Your task to perform on an android device: toggle show notifications on the lock screen Image 0: 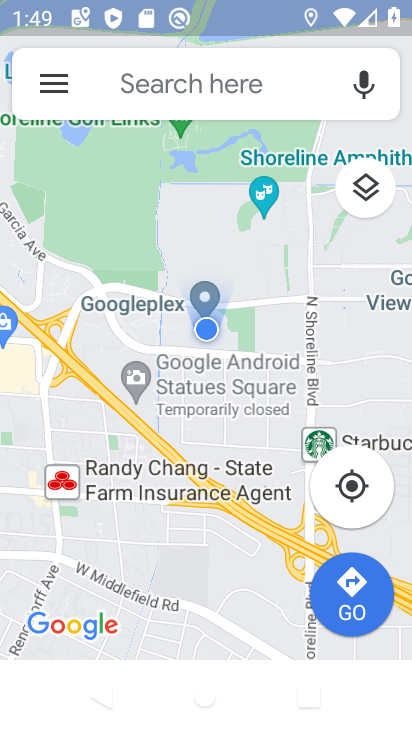
Step 0: press back button
Your task to perform on an android device: toggle show notifications on the lock screen Image 1: 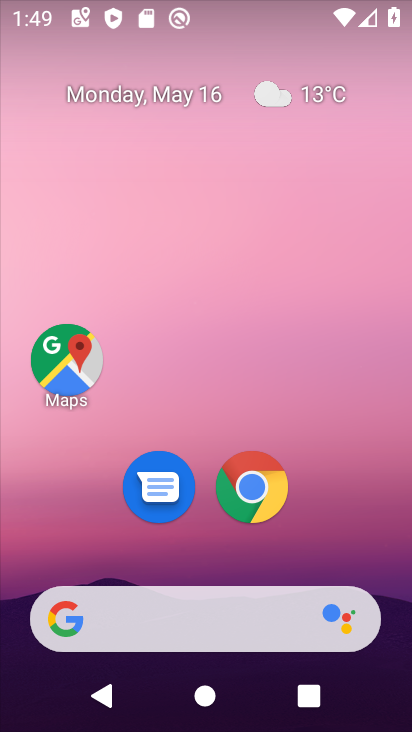
Step 1: drag from (311, 511) to (236, 13)
Your task to perform on an android device: toggle show notifications on the lock screen Image 2: 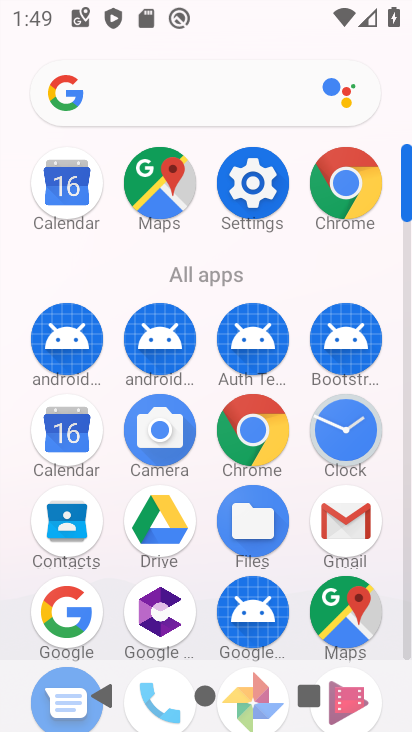
Step 2: drag from (7, 516) to (16, 156)
Your task to perform on an android device: toggle show notifications on the lock screen Image 3: 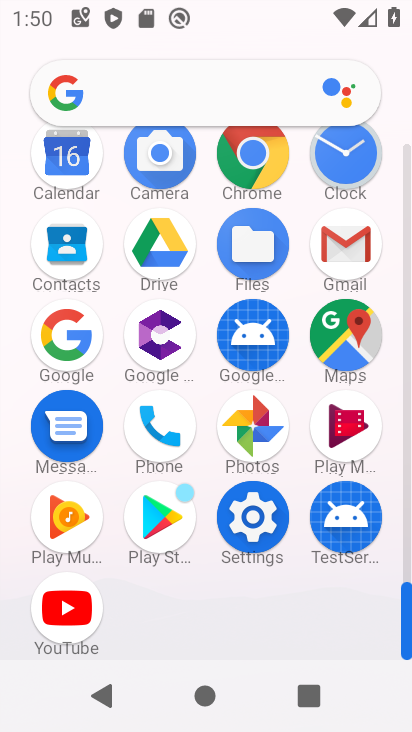
Step 3: click (250, 511)
Your task to perform on an android device: toggle show notifications on the lock screen Image 4: 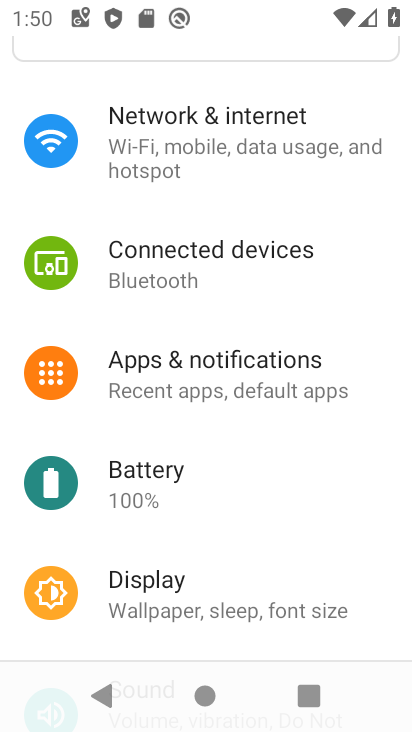
Step 4: drag from (284, 541) to (320, 111)
Your task to perform on an android device: toggle show notifications on the lock screen Image 5: 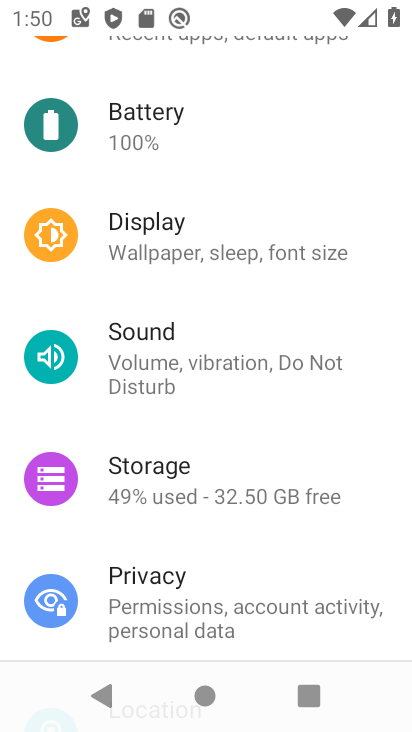
Step 5: drag from (264, 507) to (305, 138)
Your task to perform on an android device: toggle show notifications on the lock screen Image 6: 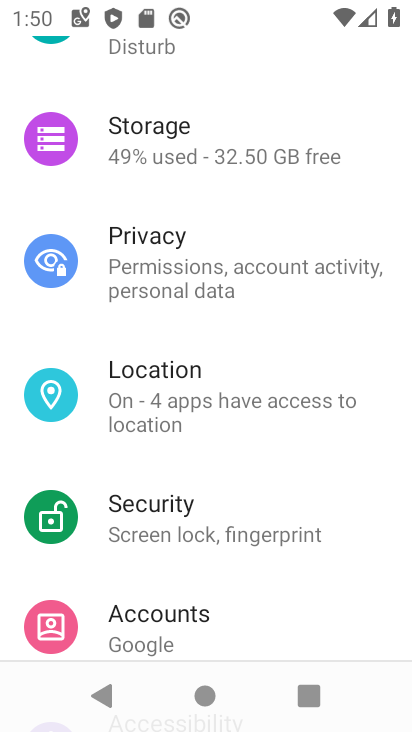
Step 6: drag from (269, 161) to (261, 622)
Your task to perform on an android device: toggle show notifications on the lock screen Image 7: 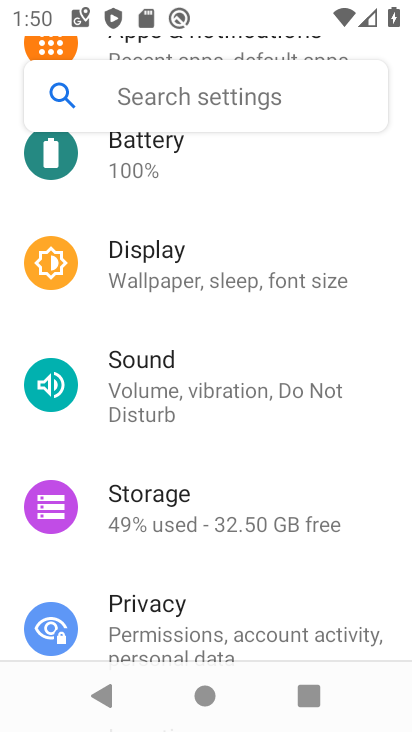
Step 7: drag from (276, 203) to (279, 611)
Your task to perform on an android device: toggle show notifications on the lock screen Image 8: 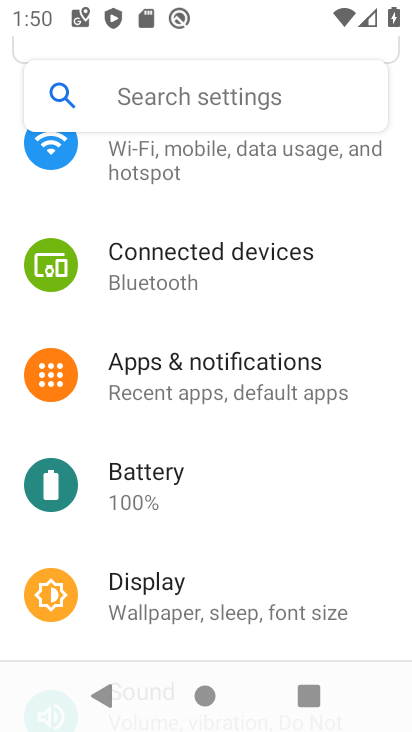
Step 8: drag from (311, 532) to (316, 199)
Your task to perform on an android device: toggle show notifications on the lock screen Image 9: 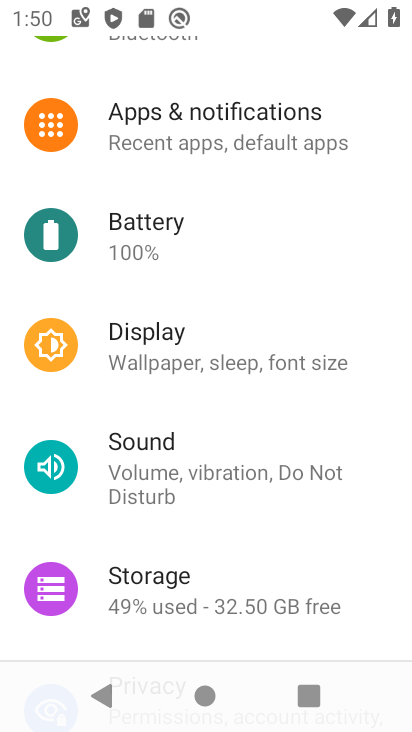
Step 9: drag from (287, 175) to (296, 472)
Your task to perform on an android device: toggle show notifications on the lock screen Image 10: 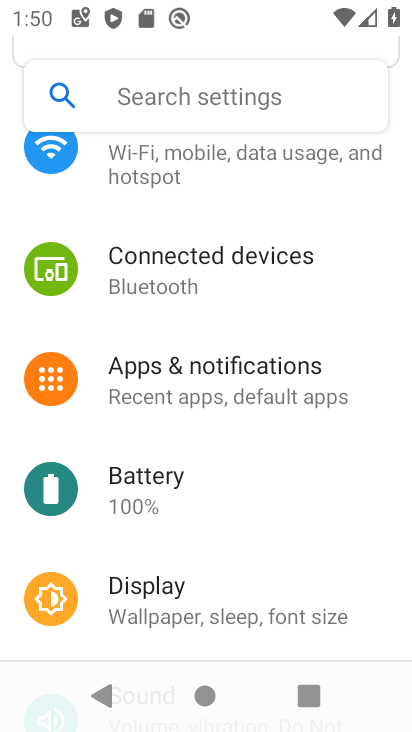
Step 10: click (254, 374)
Your task to perform on an android device: toggle show notifications on the lock screen Image 11: 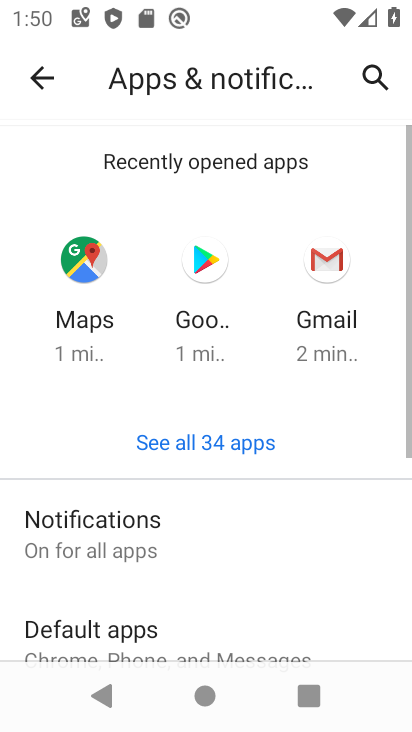
Step 11: click (185, 504)
Your task to perform on an android device: toggle show notifications on the lock screen Image 12: 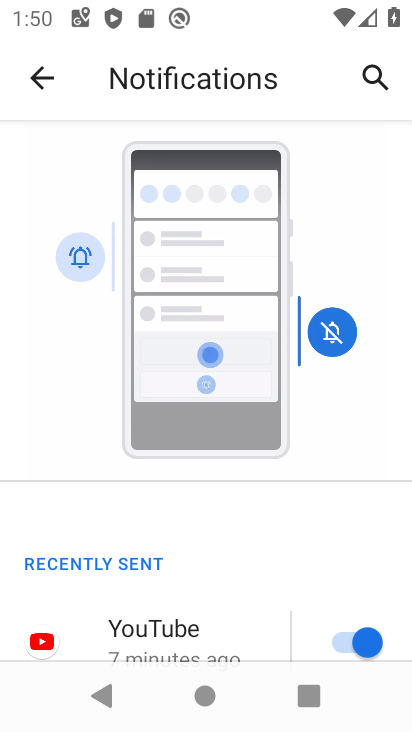
Step 12: drag from (212, 616) to (260, 155)
Your task to perform on an android device: toggle show notifications on the lock screen Image 13: 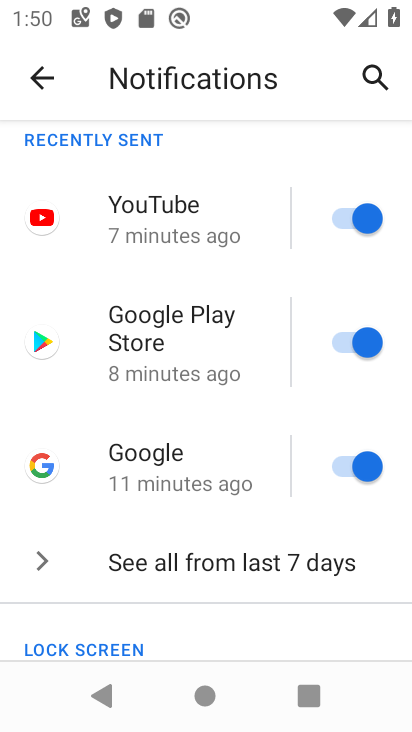
Step 13: drag from (235, 529) to (255, 154)
Your task to perform on an android device: toggle show notifications on the lock screen Image 14: 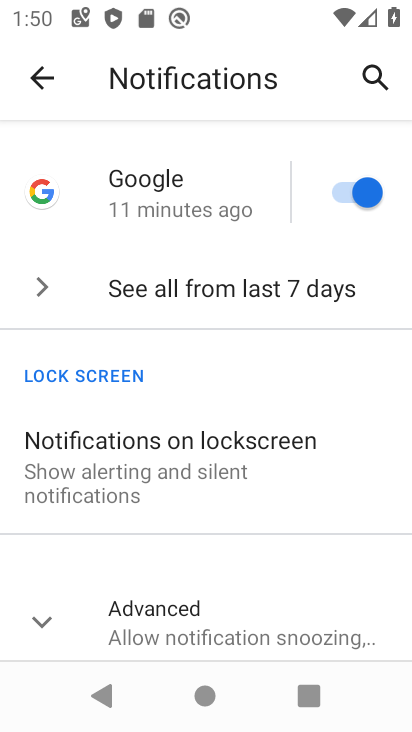
Step 14: click (111, 622)
Your task to perform on an android device: toggle show notifications on the lock screen Image 15: 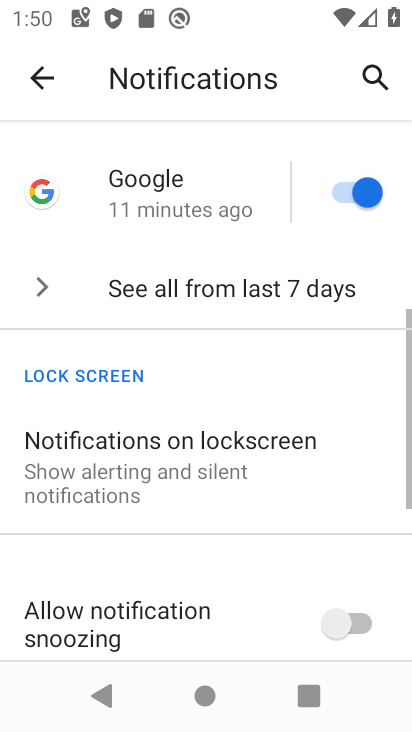
Step 15: drag from (204, 578) to (227, 143)
Your task to perform on an android device: toggle show notifications on the lock screen Image 16: 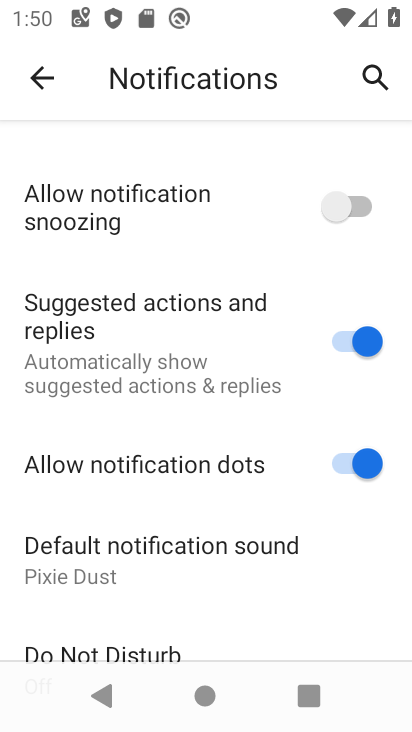
Step 16: click (162, 183)
Your task to perform on an android device: toggle show notifications on the lock screen Image 17: 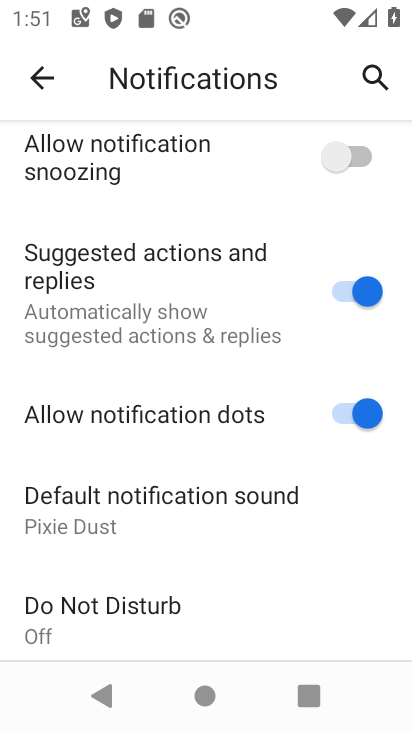
Step 17: drag from (163, 274) to (179, 566)
Your task to perform on an android device: toggle show notifications on the lock screen Image 18: 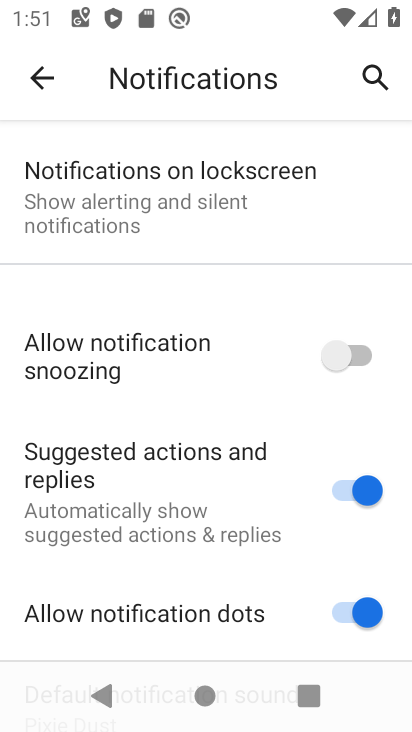
Step 18: click (122, 194)
Your task to perform on an android device: toggle show notifications on the lock screen Image 19: 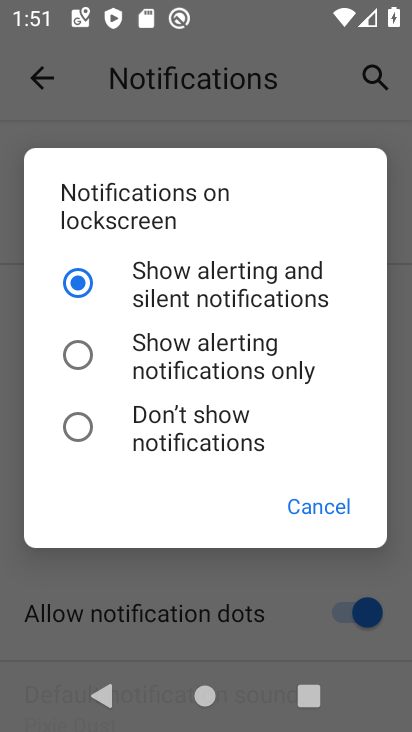
Step 19: click (153, 341)
Your task to perform on an android device: toggle show notifications on the lock screen Image 20: 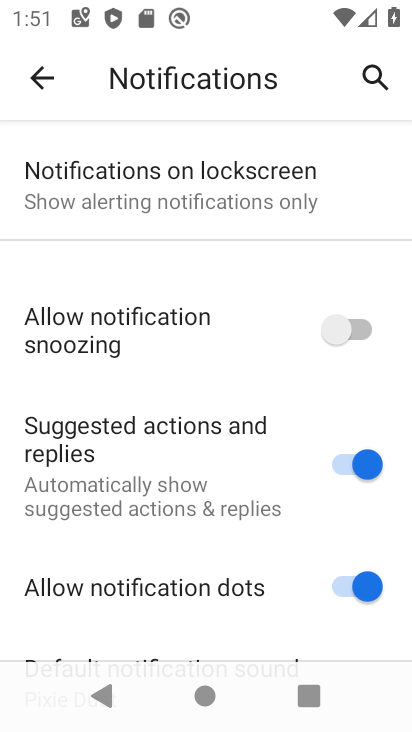
Step 20: task complete